Your task to perform on an android device: Add logitech g pro to the cart on target, then select checkout. Image 0: 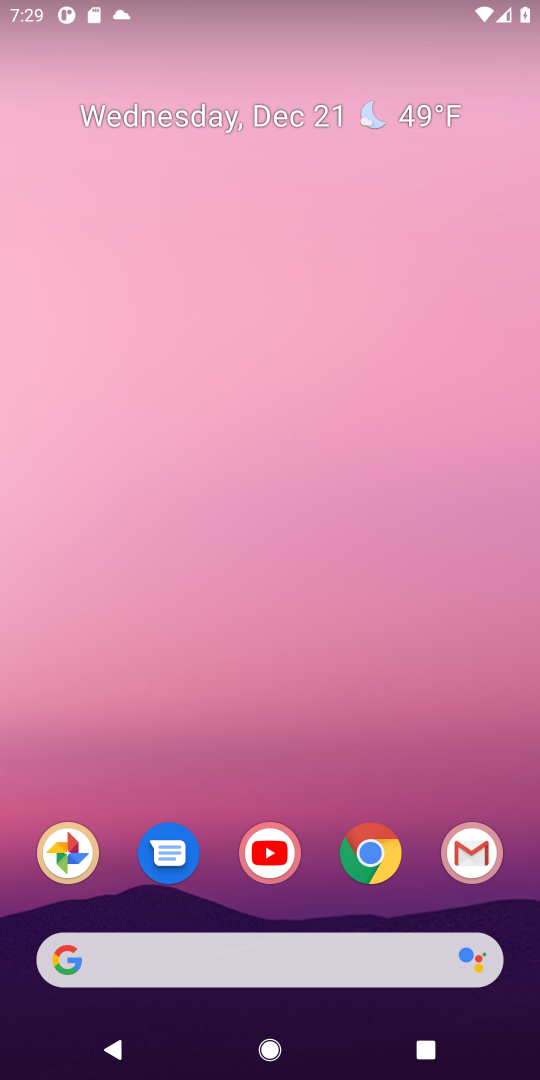
Step 0: click (375, 855)
Your task to perform on an android device: Add logitech g pro to the cart on target, then select checkout. Image 1: 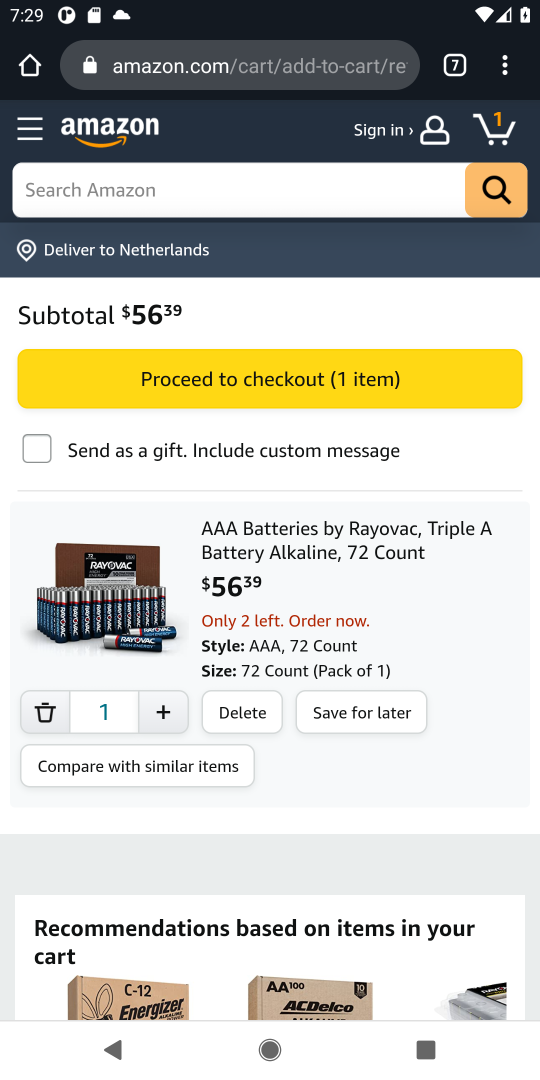
Step 1: click (448, 56)
Your task to perform on an android device: Add logitech g pro to the cart on target, then select checkout. Image 2: 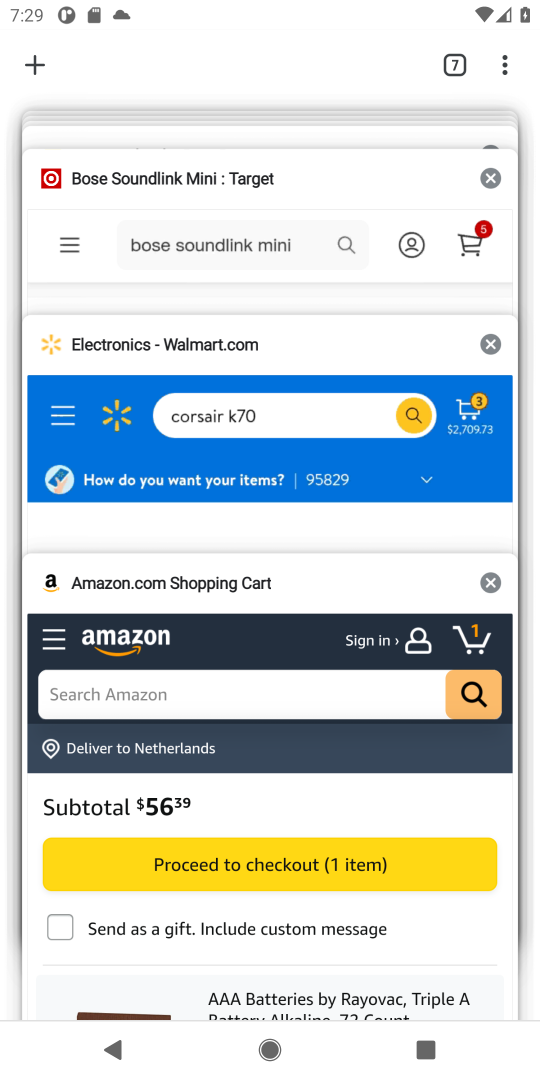
Step 2: click (338, 204)
Your task to perform on an android device: Add logitech g pro to the cart on target, then select checkout. Image 3: 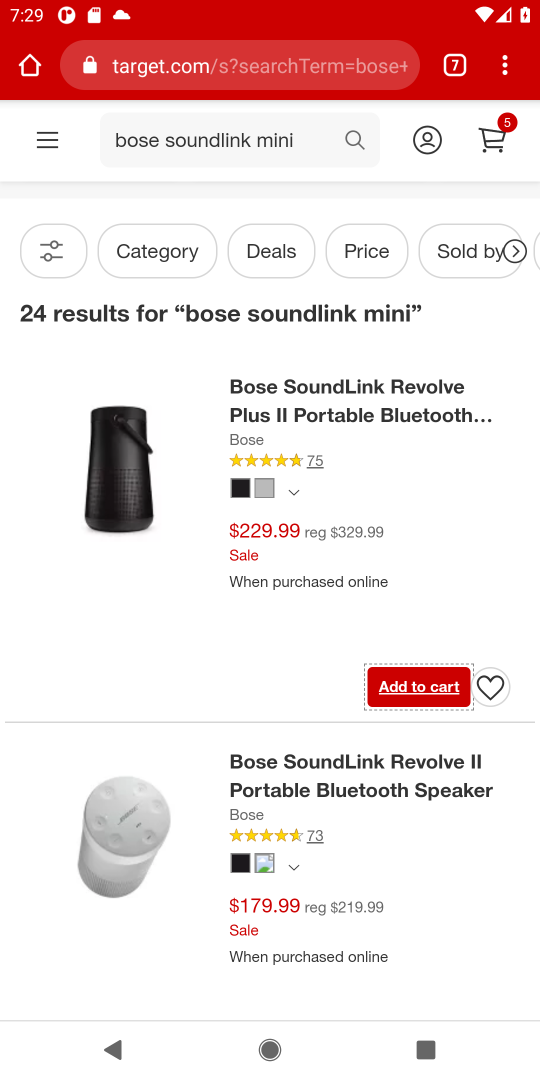
Step 3: click (285, 136)
Your task to perform on an android device: Add logitech g pro to the cart on target, then select checkout. Image 4: 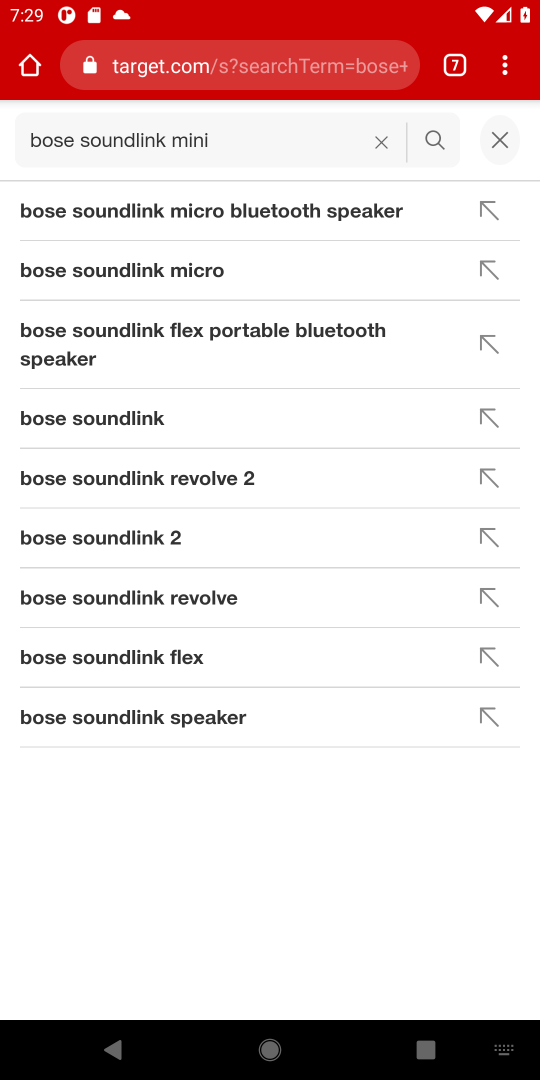
Step 4: click (383, 144)
Your task to perform on an android device: Add logitech g pro to the cart on target, then select checkout. Image 5: 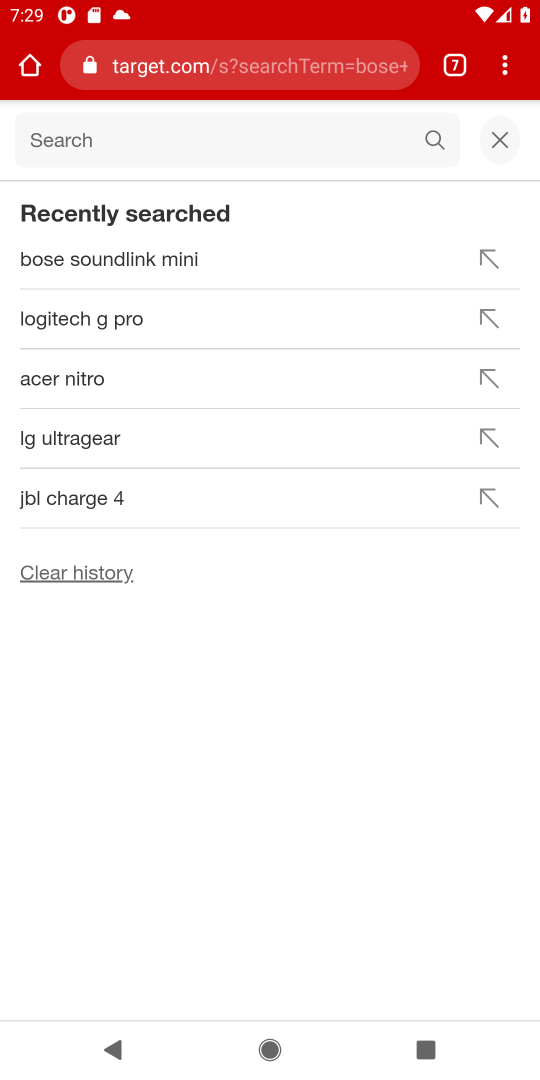
Step 5: type "logitech g pro"
Your task to perform on an android device: Add logitech g pro to the cart on target, then select checkout. Image 6: 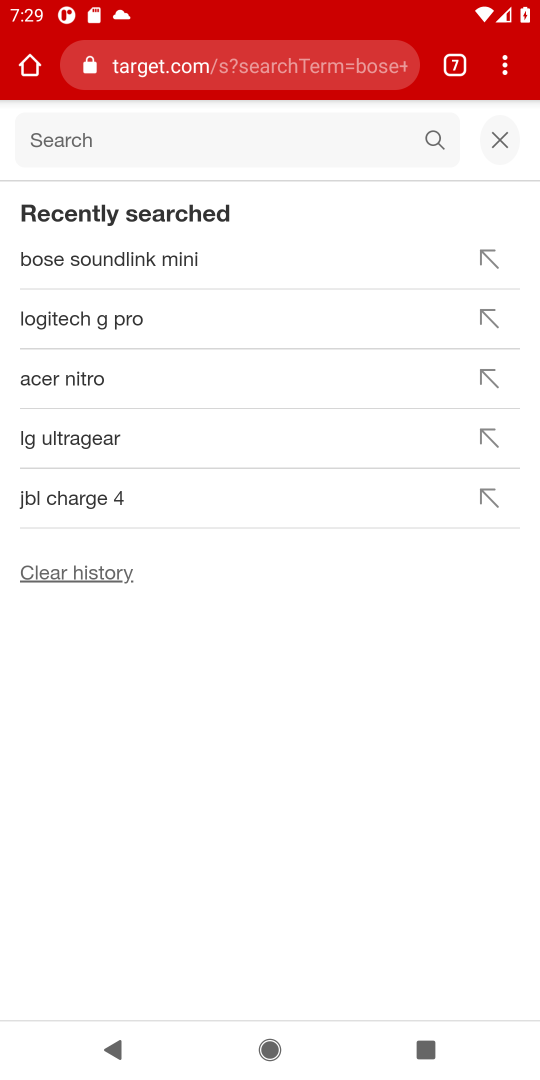
Step 6: click (145, 151)
Your task to perform on an android device: Add logitech g pro to the cart on target, then select checkout. Image 7: 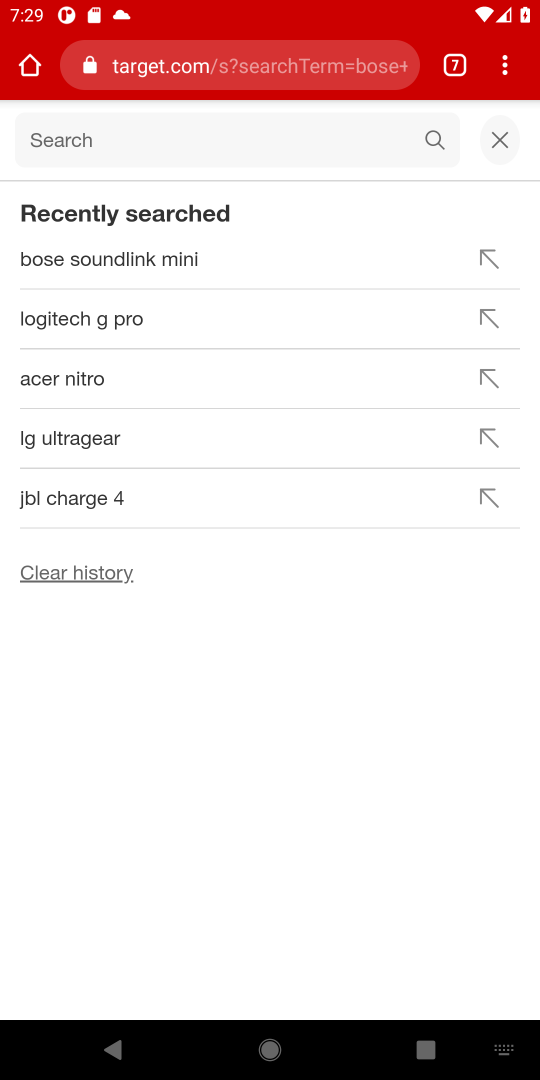
Step 7: type "logitech g pro"
Your task to perform on an android device: Add logitech g pro to the cart on target, then select checkout. Image 8: 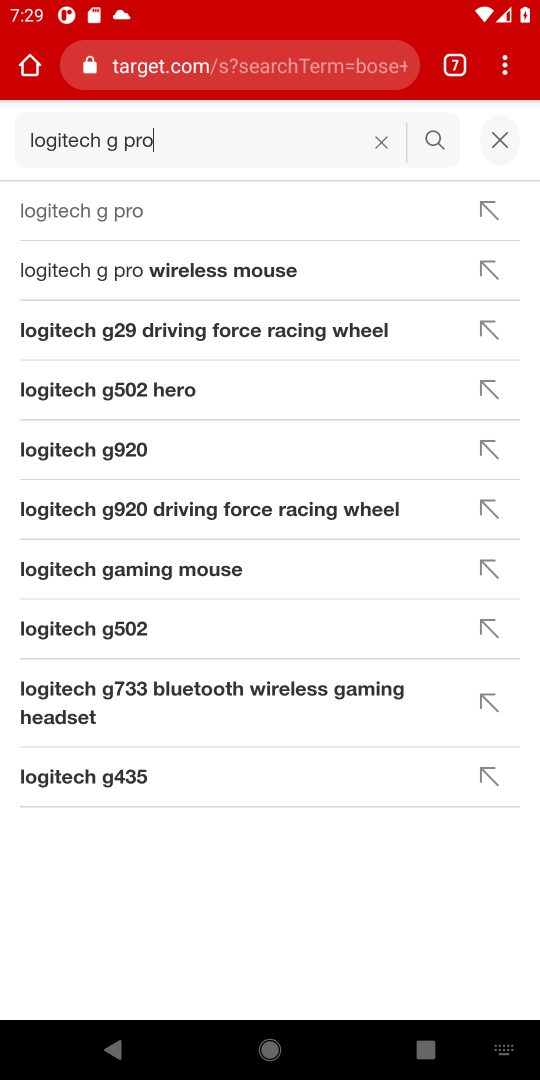
Step 8: click (66, 206)
Your task to perform on an android device: Add logitech g pro to the cart on target, then select checkout. Image 9: 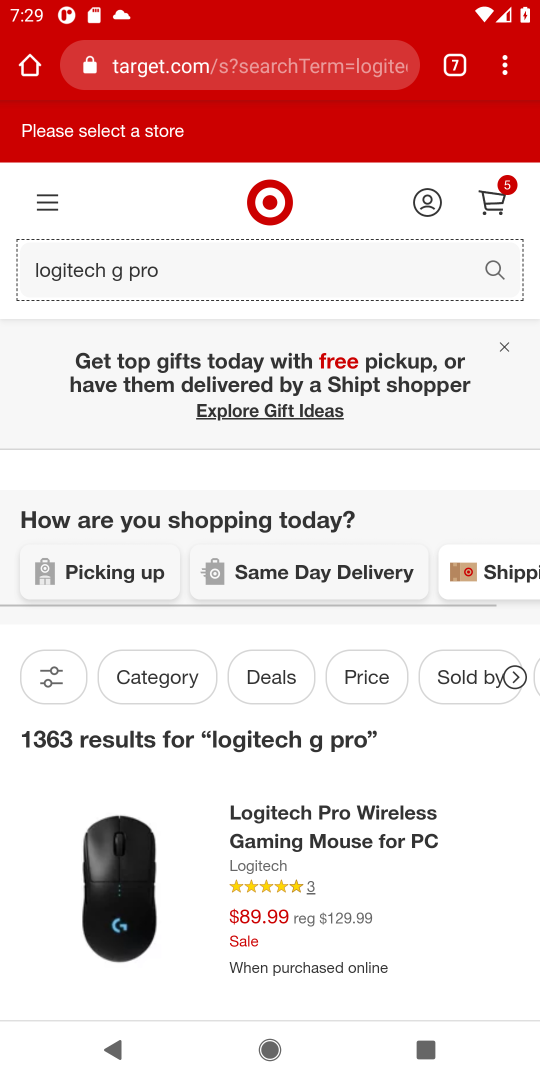
Step 9: drag from (444, 903) to (502, 313)
Your task to perform on an android device: Add logitech g pro to the cart on target, then select checkout. Image 10: 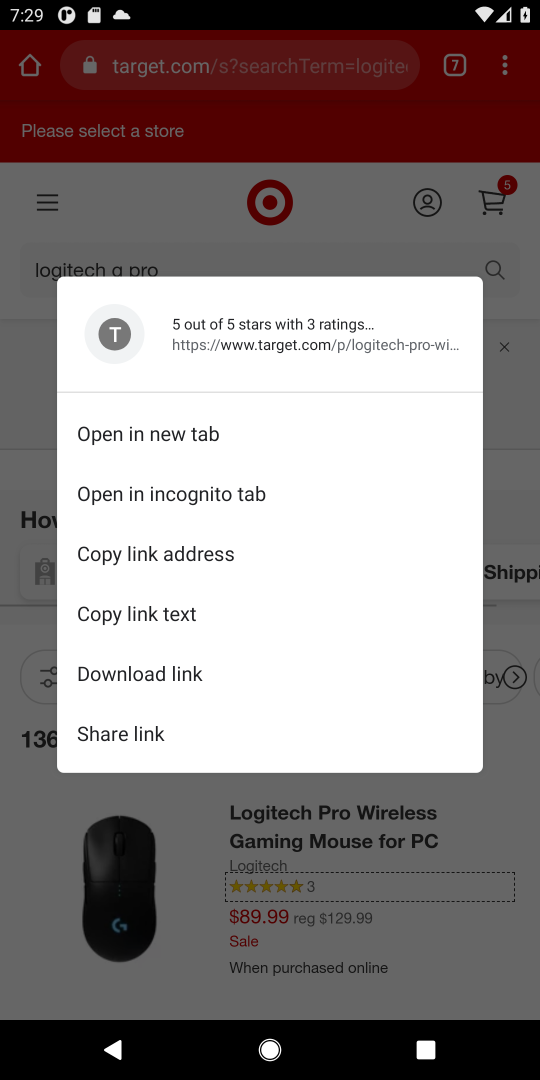
Step 10: click (482, 836)
Your task to perform on an android device: Add logitech g pro to the cart on target, then select checkout. Image 11: 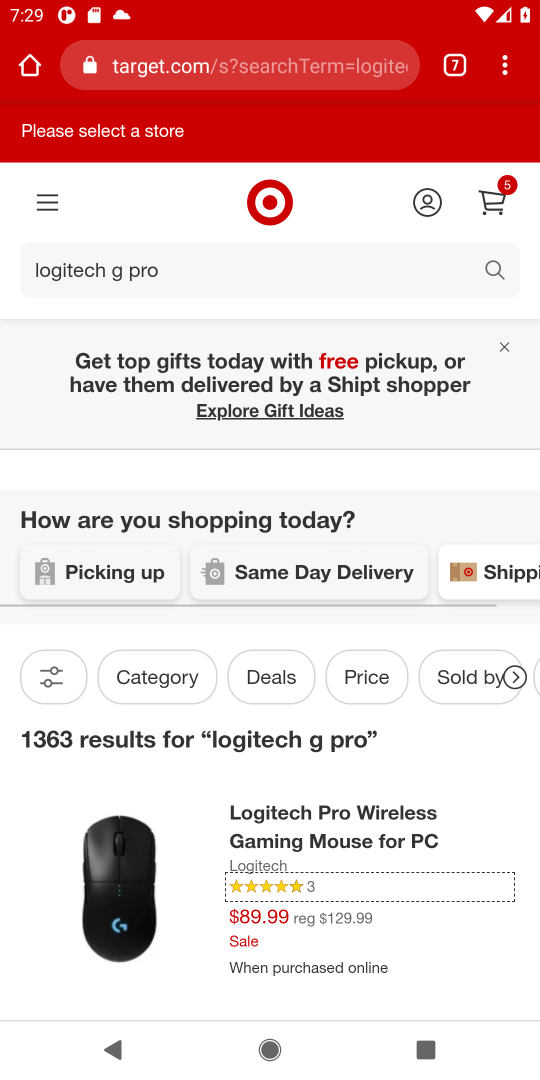
Step 11: drag from (444, 794) to (366, 233)
Your task to perform on an android device: Add logitech g pro to the cart on target, then select checkout. Image 12: 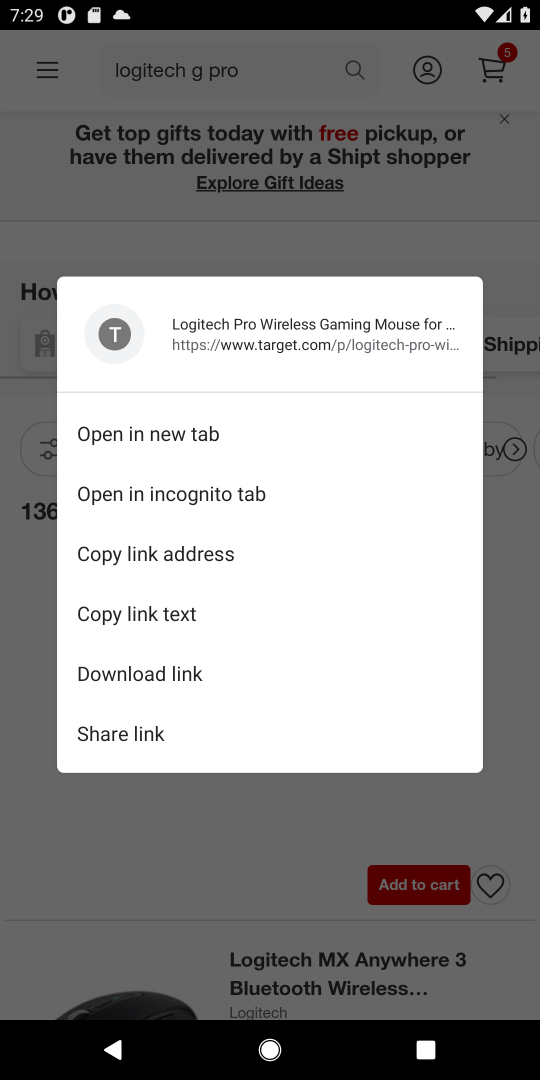
Step 12: click (250, 850)
Your task to perform on an android device: Add logitech g pro to the cart on target, then select checkout. Image 13: 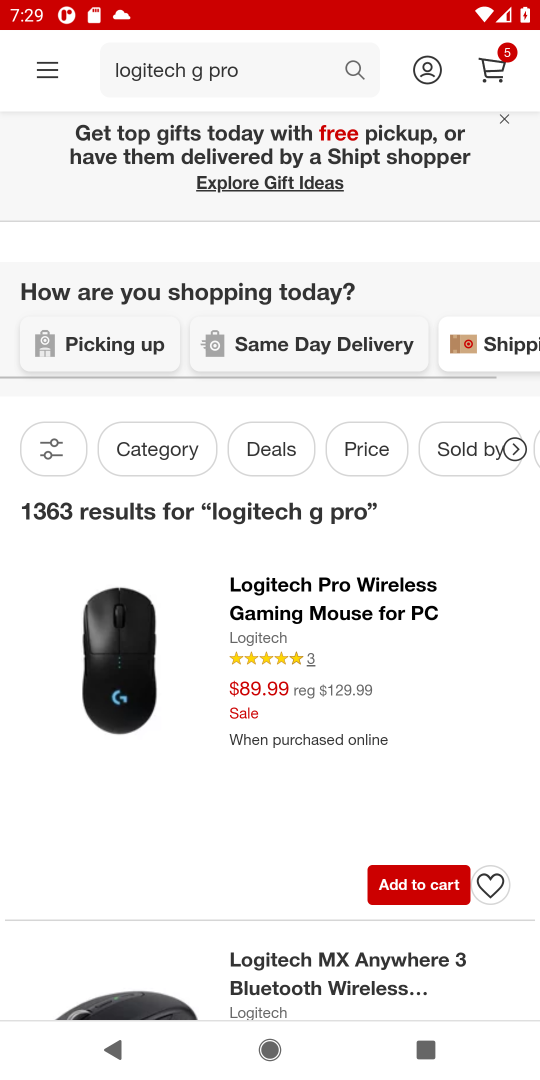
Step 13: click (408, 889)
Your task to perform on an android device: Add logitech g pro to the cart on target, then select checkout. Image 14: 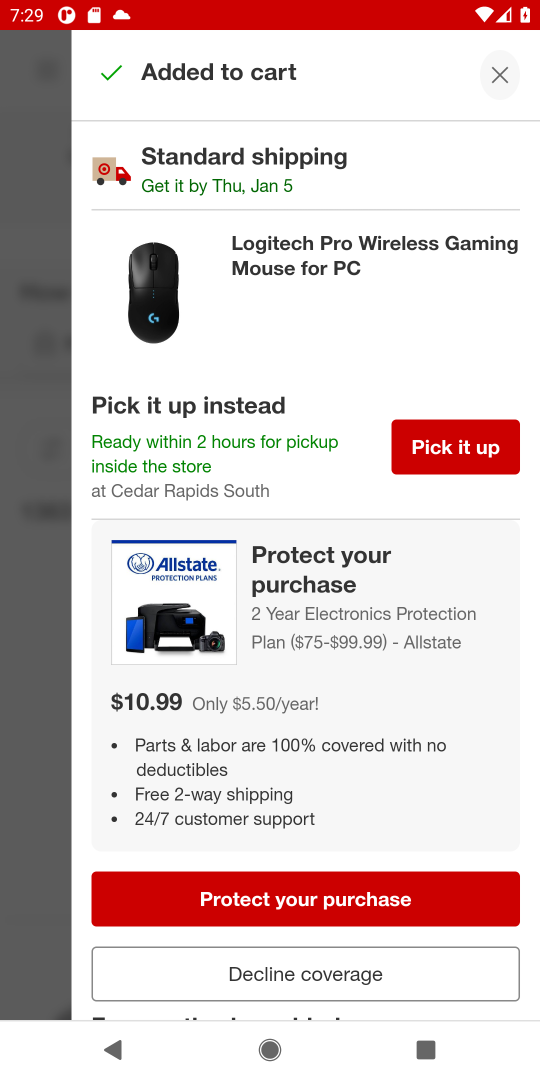
Step 14: task complete